Your task to perform on an android device: Go to settings Image 0: 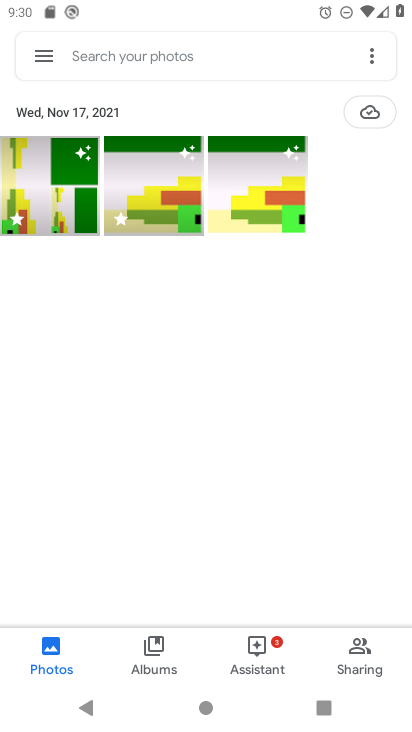
Step 0: press home button
Your task to perform on an android device: Go to settings Image 1: 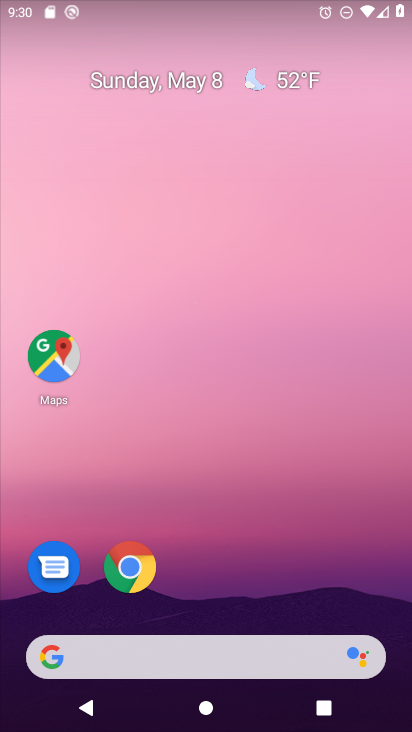
Step 1: drag from (300, 567) to (319, 99)
Your task to perform on an android device: Go to settings Image 2: 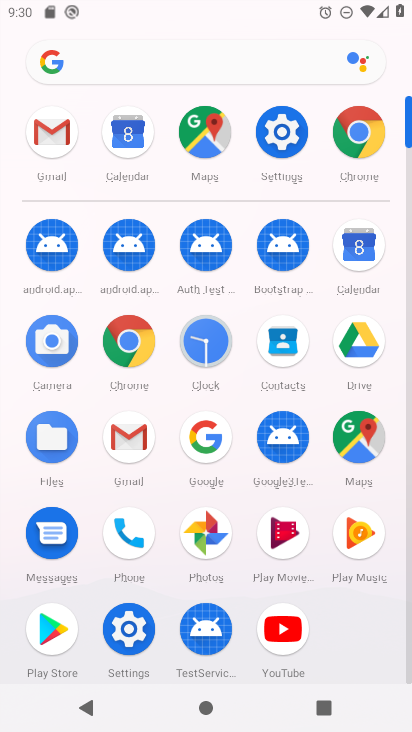
Step 2: click (263, 136)
Your task to perform on an android device: Go to settings Image 3: 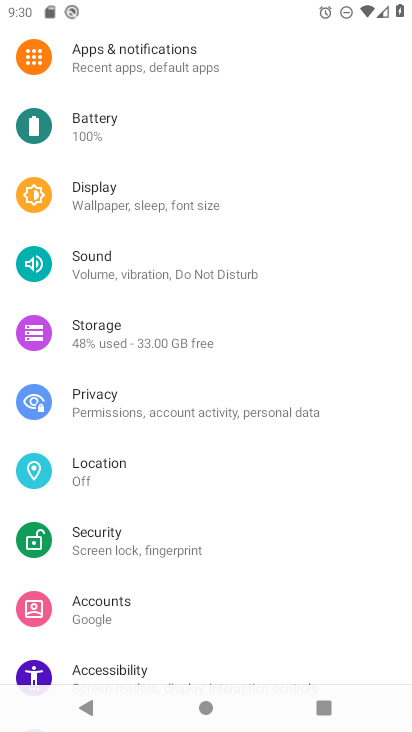
Step 3: task complete